Your task to perform on an android device: toggle pop-ups in chrome Image 0: 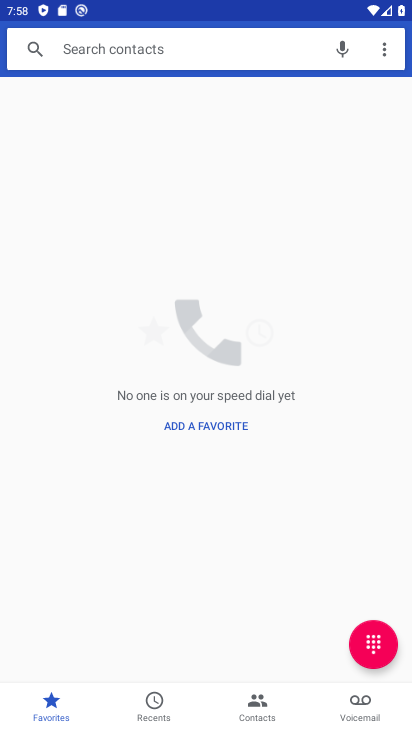
Step 0: press home button
Your task to perform on an android device: toggle pop-ups in chrome Image 1: 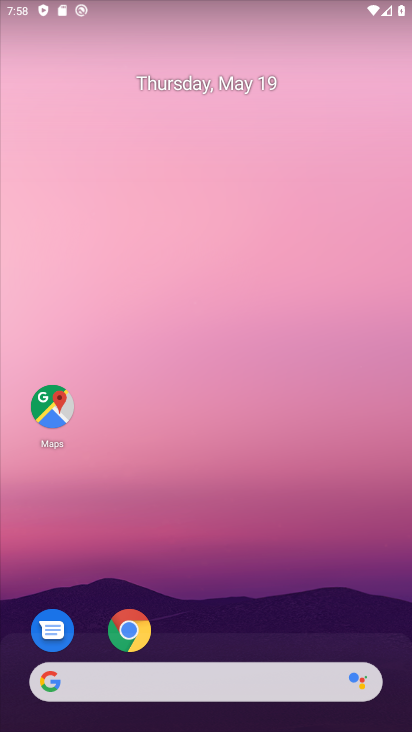
Step 1: click (129, 629)
Your task to perform on an android device: toggle pop-ups in chrome Image 2: 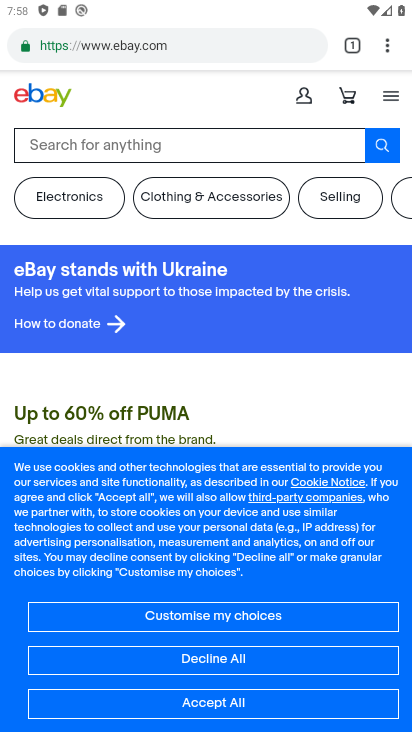
Step 2: click (386, 50)
Your task to perform on an android device: toggle pop-ups in chrome Image 3: 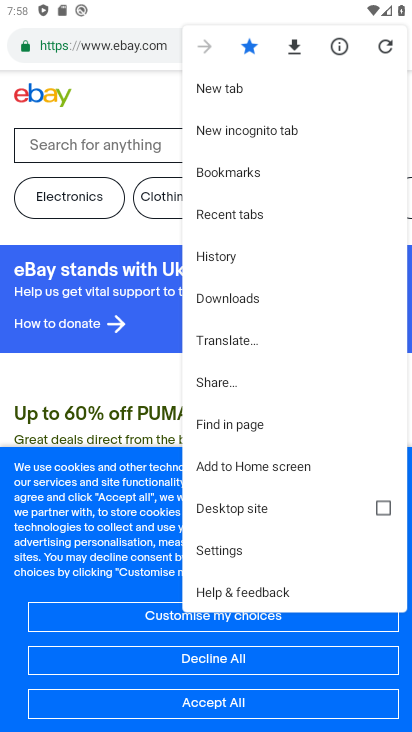
Step 3: click (227, 551)
Your task to perform on an android device: toggle pop-ups in chrome Image 4: 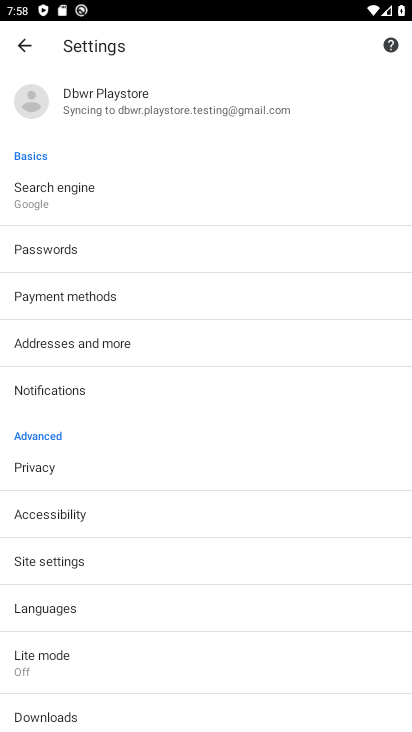
Step 4: click (65, 567)
Your task to perform on an android device: toggle pop-ups in chrome Image 5: 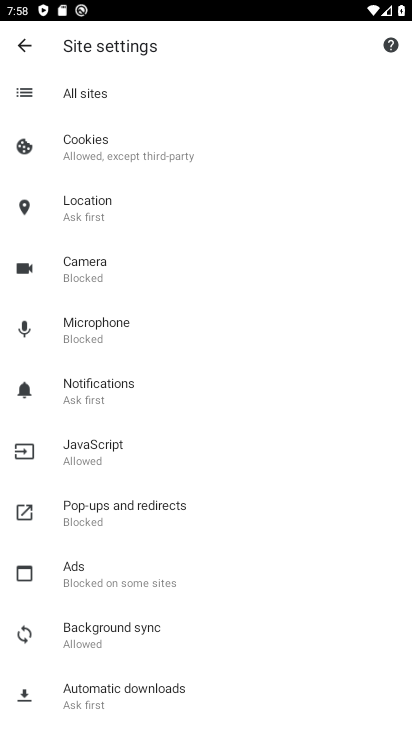
Step 5: click (98, 514)
Your task to perform on an android device: toggle pop-ups in chrome Image 6: 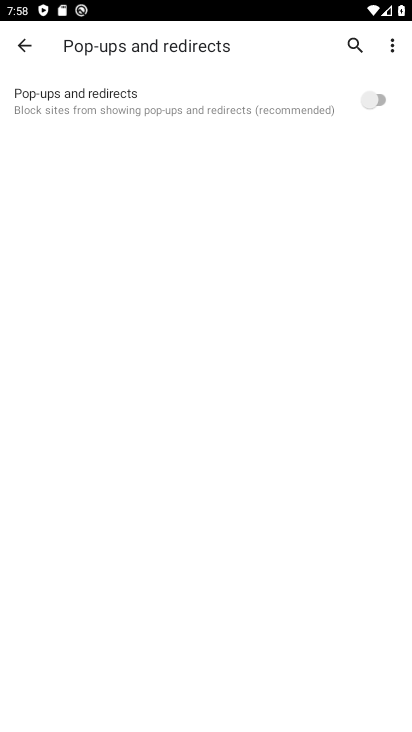
Step 6: click (381, 95)
Your task to perform on an android device: toggle pop-ups in chrome Image 7: 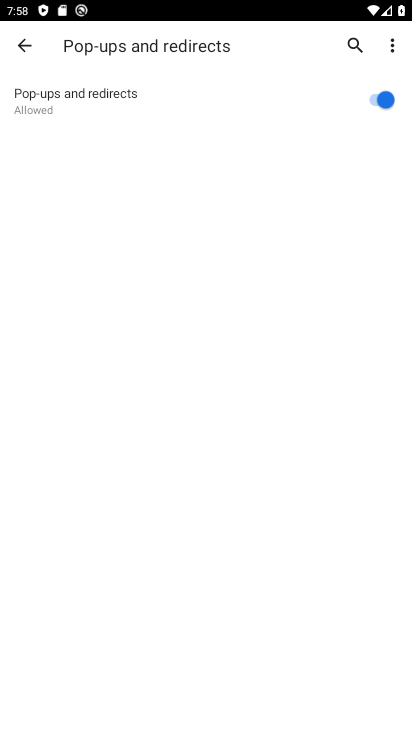
Step 7: task complete